Your task to perform on an android device: toggle improve location accuracy Image 0: 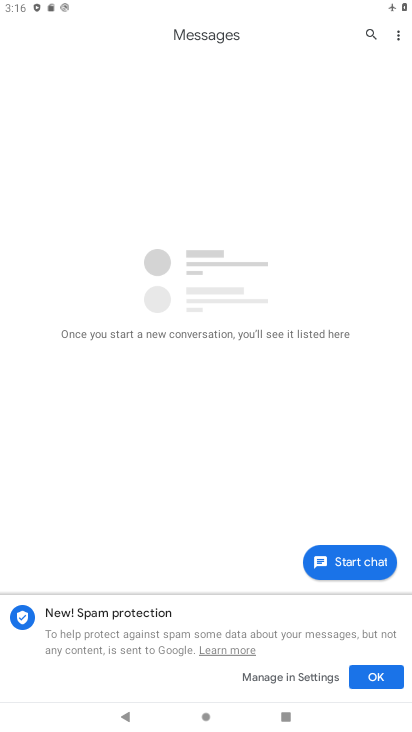
Step 0: press home button
Your task to perform on an android device: toggle improve location accuracy Image 1: 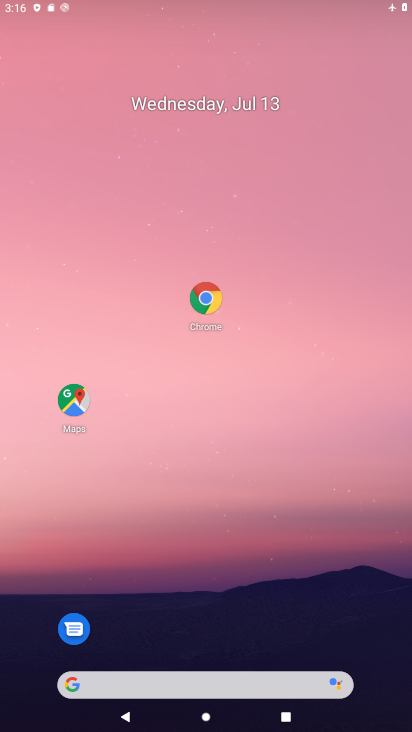
Step 1: drag from (270, 595) to (281, 203)
Your task to perform on an android device: toggle improve location accuracy Image 2: 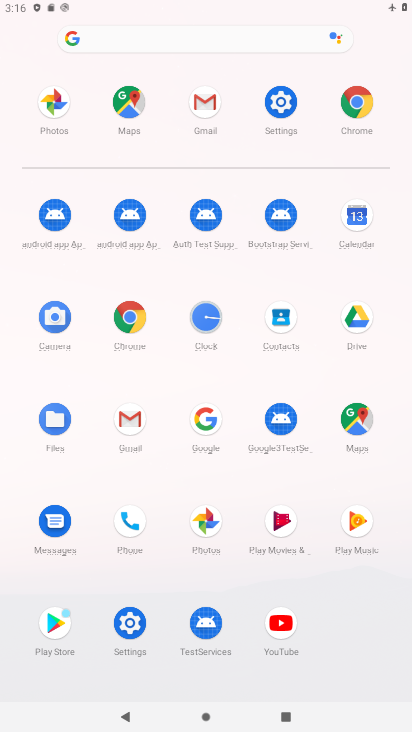
Step 2: click (278, 90)
Your task to perform on an android device: toggle improve location accuracy Image 3: 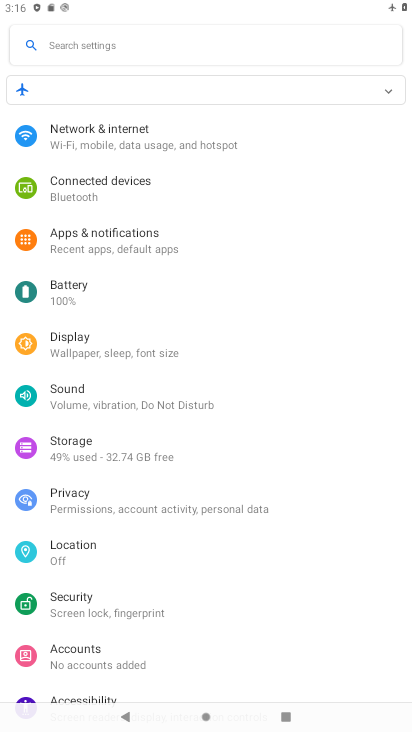
Step 3: click (71, 559)
Your task to perform on an android device: toggle improve location accuracy Image 4: 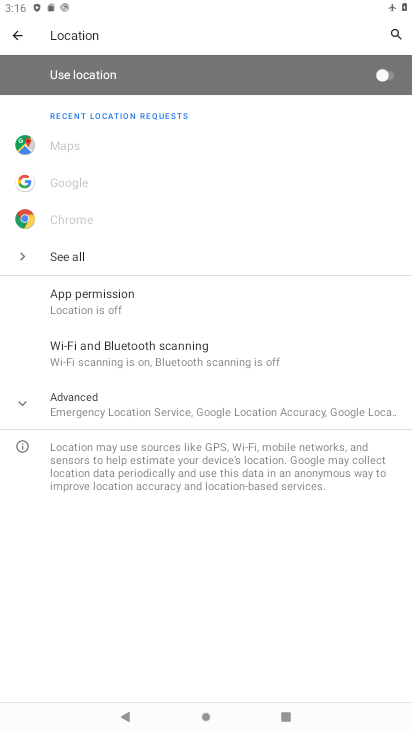
Step 4: click (164, 418)
Your task to perform on an android device: toggle improve location accuracy Image 5: 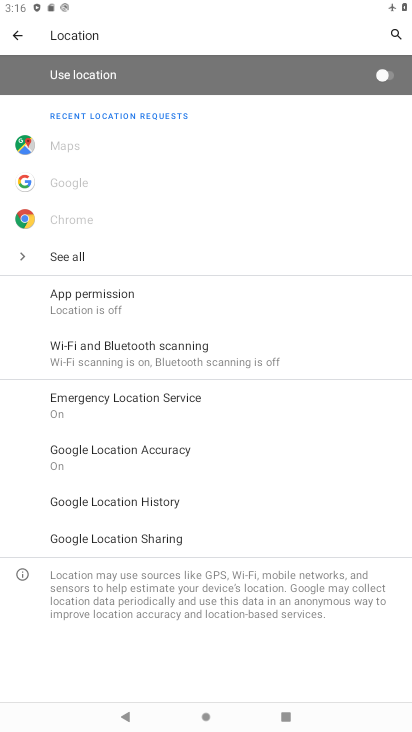
Step 5: click (142, 470)
Your task to perform on an android device: toggle improve location accuracy Image 6: 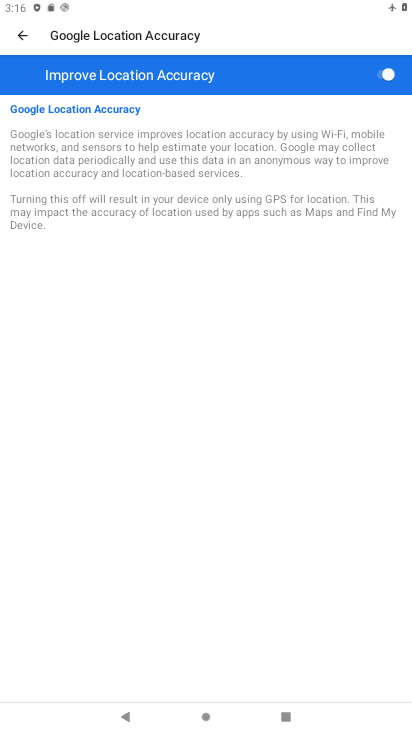
Step 6: click (392, 81)
Your task to perform on an android device: toggle improve location accuracy Image 7: 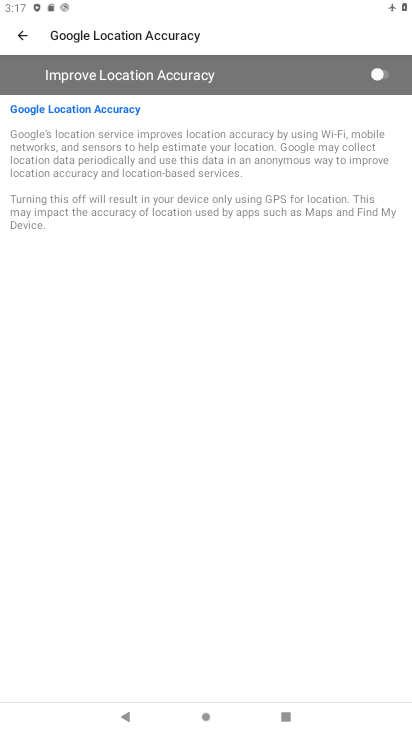
Step 7: task complete